Your task to perform on an android device: Open Google Maps Image 0: 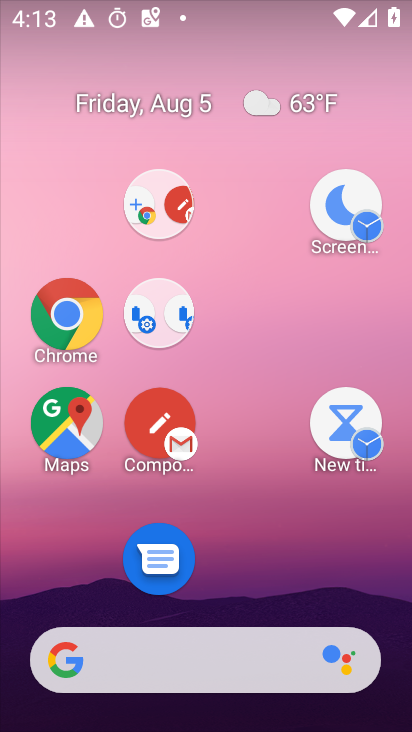
Step 0: click (66, 427)
Your task to perform on an android device: Open Google Maps Image 1: 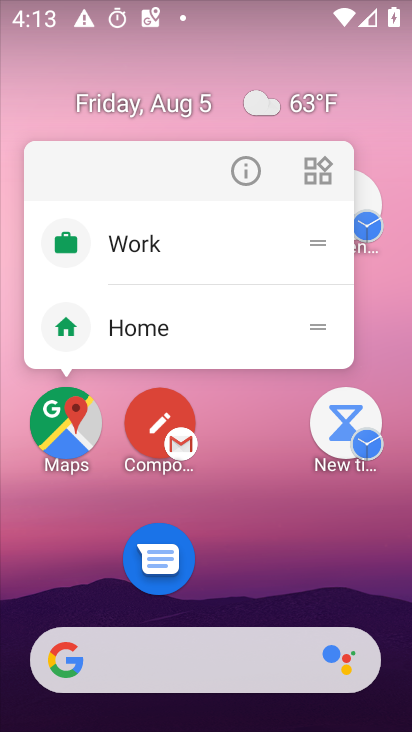
Step 1: click (69, 429)
Your task to perform on an android device: Open Google Maps Image 2: 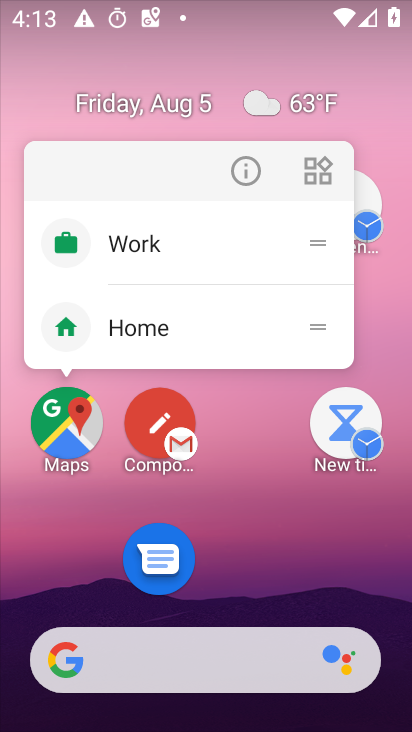
Step 2: click (64, 429)
Your task to perform on an android device: Open Google Maps Image 3: 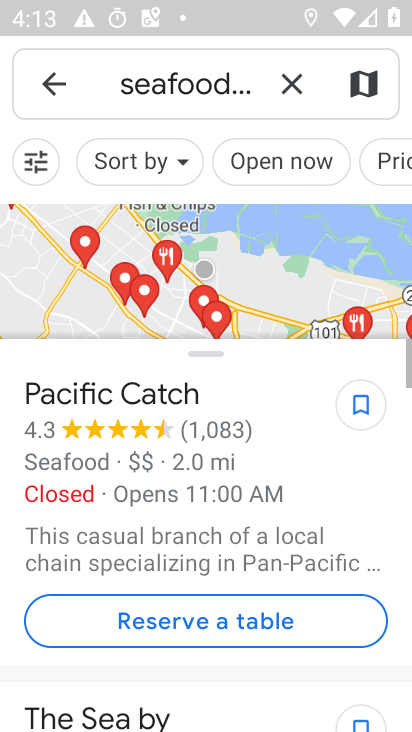
Step 3: task complete